Your task to perform on an android device: Open the stopwatch Image 0: 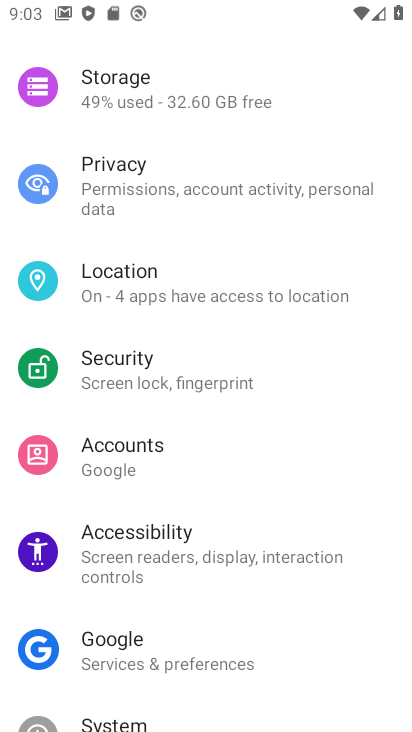
Step 0: press home button
Your task to perform on an android device: Open the stopwatch Image 1: 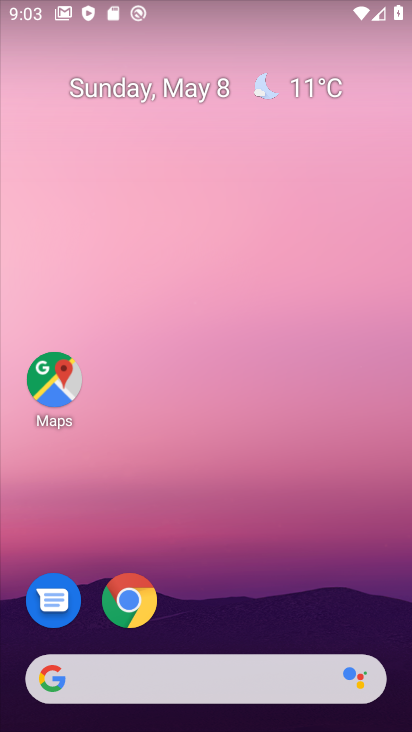
Step 1: drag from (221, 622) to (290, 55)
Your task to perform on an android device: Open the stopwatch Image 2: 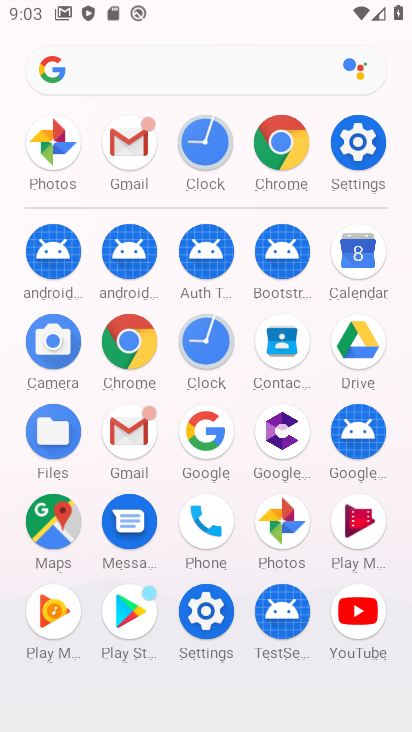
Step 2: click (188, 156)
Your task to perform on an android device: Open the stopwatch Image 3: 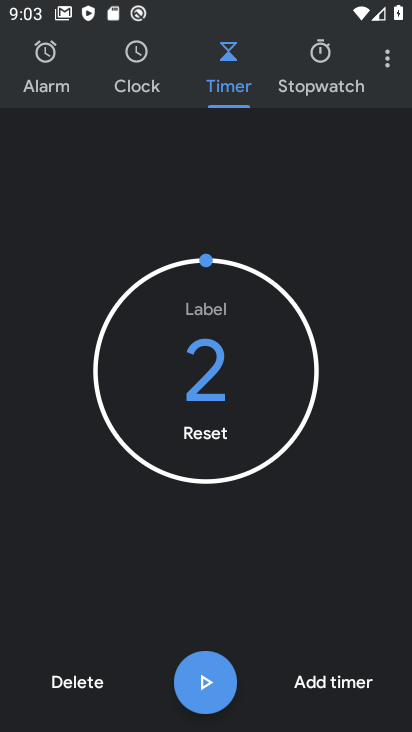
Step 3: click (309, 95)
Your task to perform on an android device: Open the stopwatch Image 4: 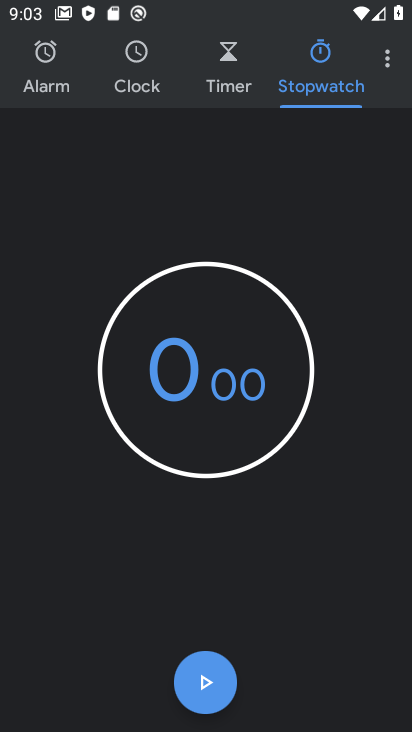
Step 4: task complete